Your task to perform on an android device: turn off airplane mode Image 0: 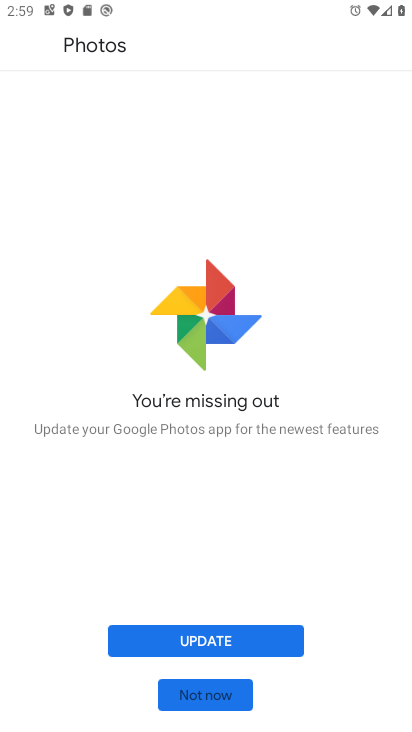
Step 0: press back button
Your task to perform on an android device: turn off airplane mode Image 1: 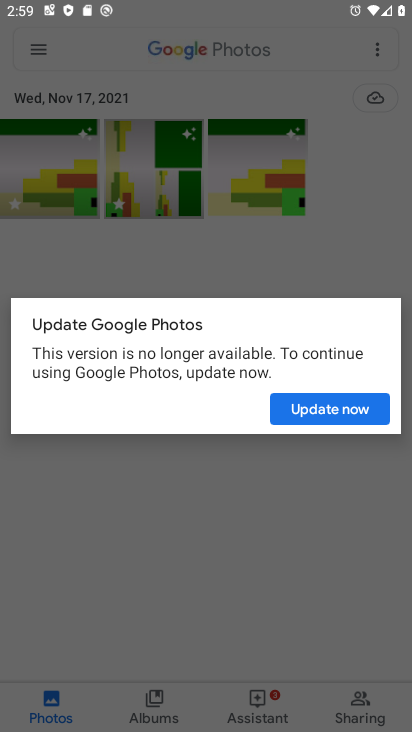
Step 1: press home button
Your task to perform on an android device: turn off airplane mode Image 2: 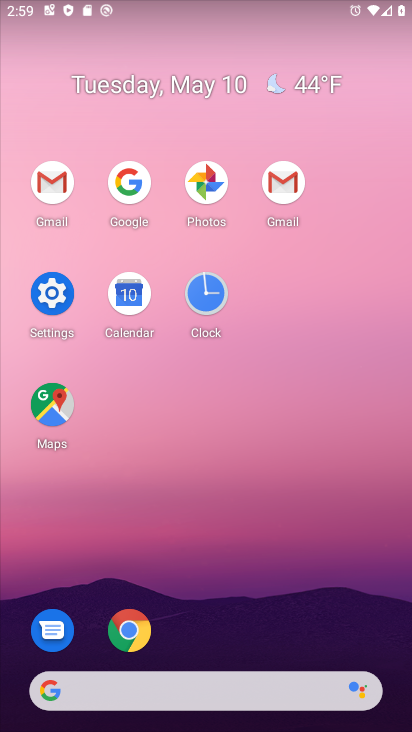
Step 2: click (43, 301)
Your task to perform on an android device: turn off airplane mode Image 3: 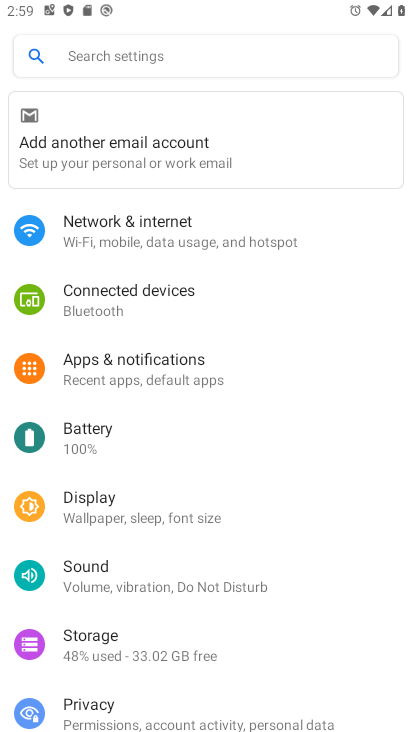
Step 3: click (213, 229)
Your task to perform on an android device: turn off airplane mode Image 4: 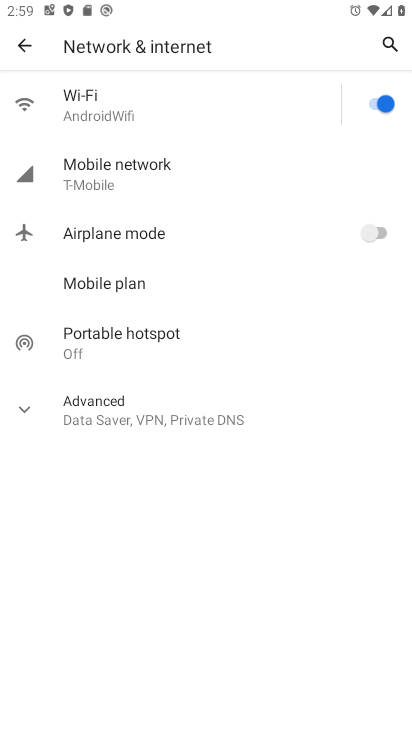
Step 4: task complete